Your task to perform on an android device: snooze an email in the gmail app Image 0: 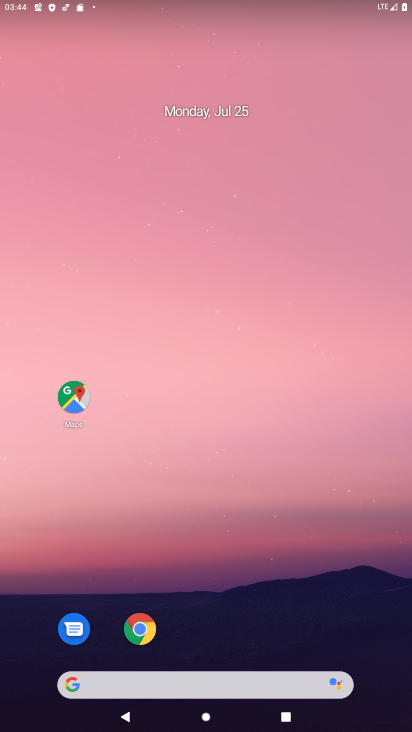
Step 0: drag from (259, 652) to (256, 2)
Your task to perform on an android device: snooze an email in the gmail app Image 1: 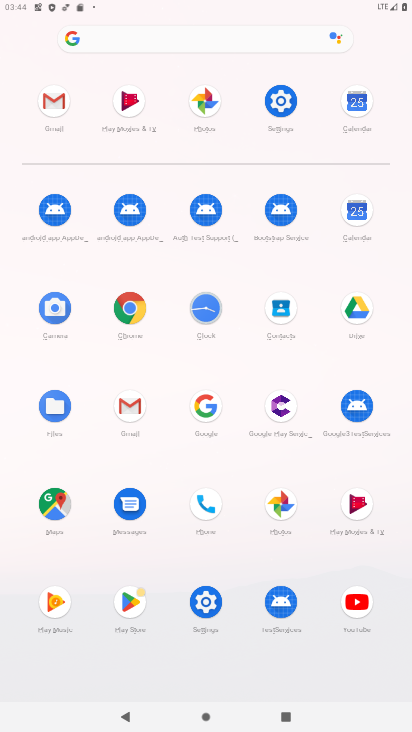
Step 1: click (67, 94)
Your task to perform on an android device: snooze an email in the gmail app Image 2: 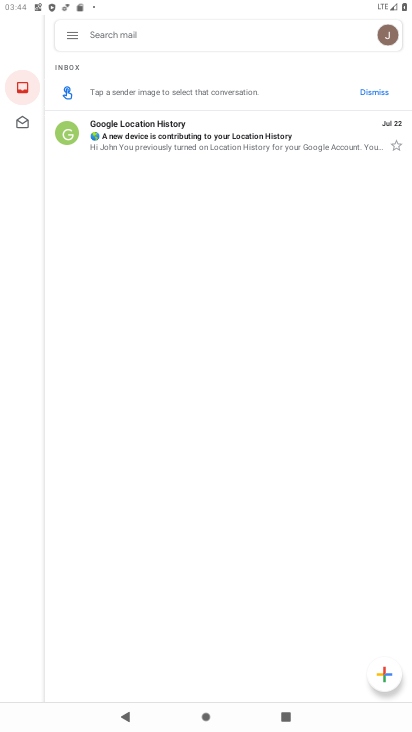
Step 2: click (68, 32)
Your task to perform on an android device: snooze an email in the gmail app Image 3: 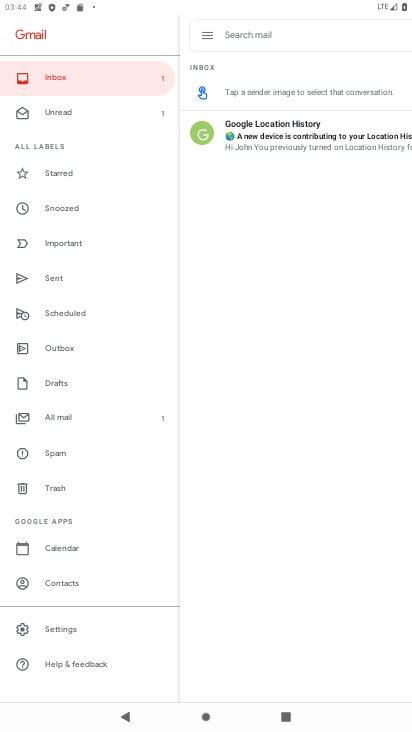
Step 3: click (242, 192)
Your task to perform on an android device: snooze an email in the gmail app Image 4: 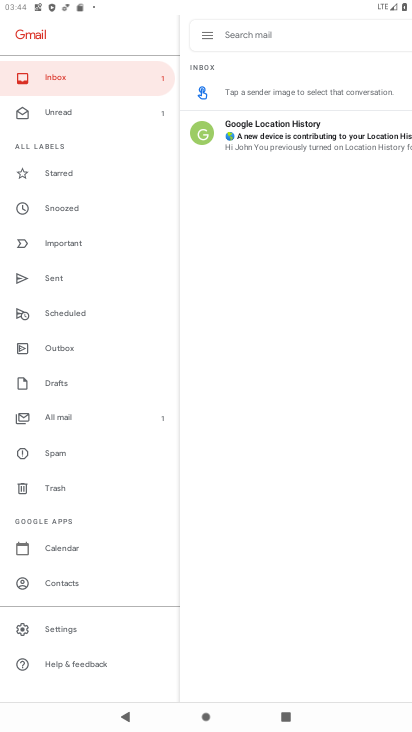
Step 4: click (314, 129)
Your task to perform on an android device: snooze an email in the gmail app Image 5: 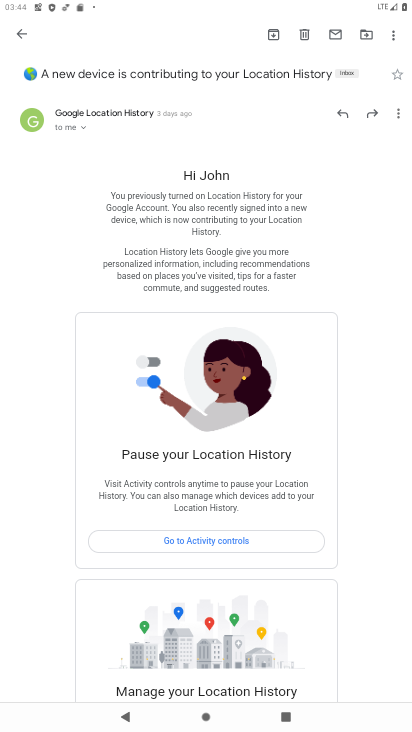
Step 5: click (396, 29)
Your task to perform on an android device: snooze an email in the gmail app Image 6: 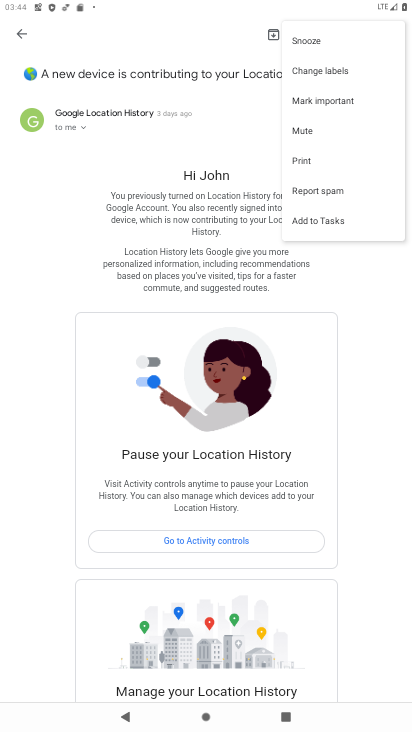
Step 6: click (304, 41)
Your task to perform on an android device: snooze an email in the gmail app Image 7: 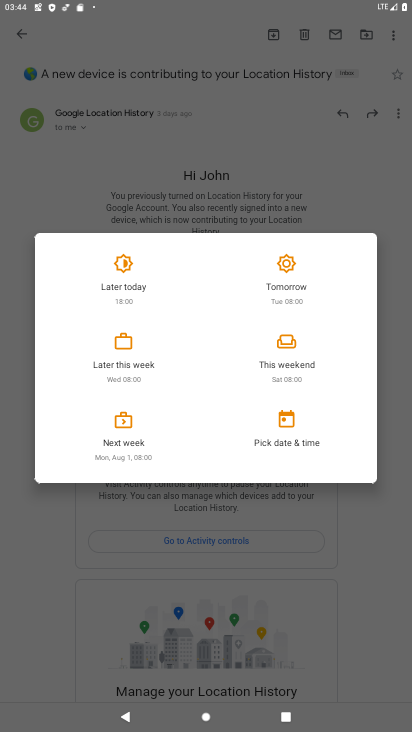
Step 7: click (293, 273)
Your task to perform on an android device: snooze an email in the gmail app Image 8: 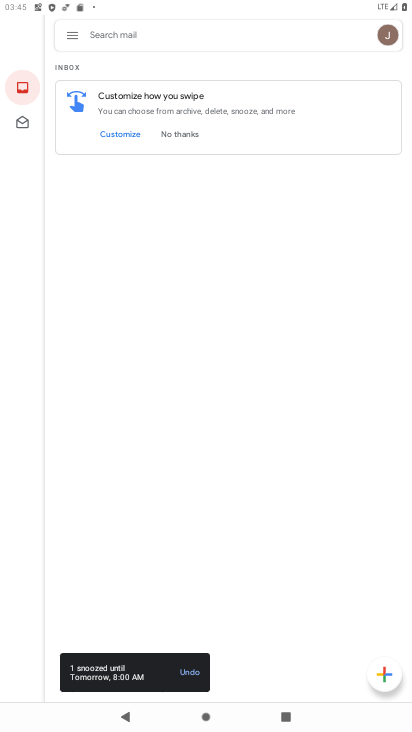
Step 8: task complete